Your task to perform on an android device: Search for pizza restaurants on Maps Image 0: 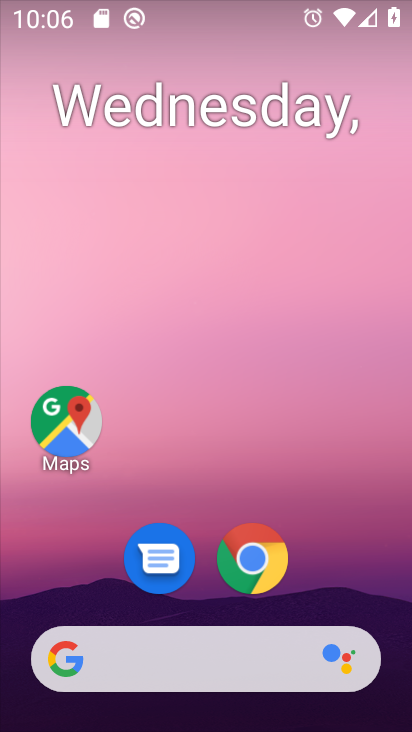
Step 0: drag from (359, 560) to (348, 74)
Your task to perform on an android device: Search for pizza restaurants on Maps Image 1: 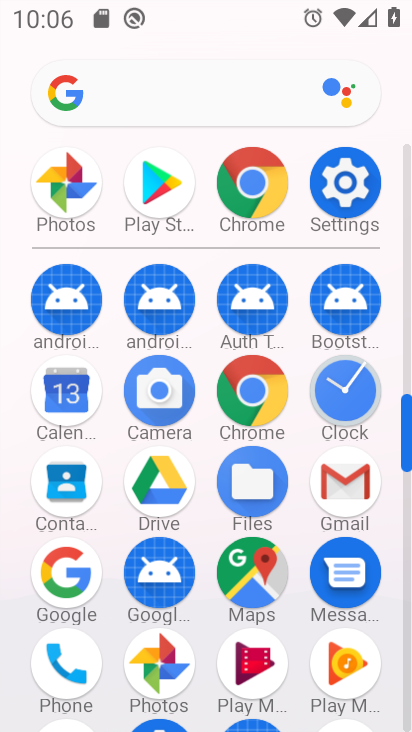
Step 1: click (263, 560)
Your task to perform on an android device: Search for pizza restaurants on Maps Image 2: 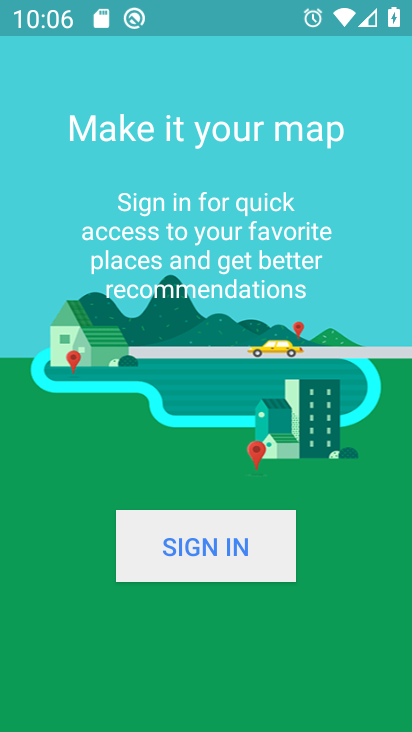
Step 2: task complete